Your task to perform on an android device: open app "Pluto TV - Live TV and Movies" (install if not already installed) and go to login screen Image 0: 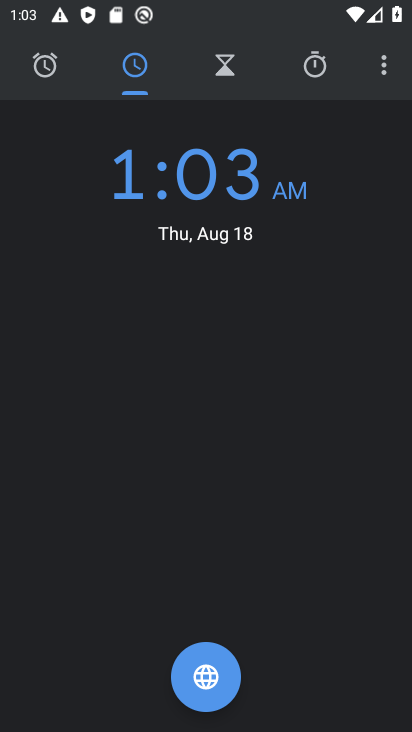
Step 0: press home button
Your task to perform on an android device: open app "Pluto TV - Live TV and Movies" (install if not already installed) and go to login screen Image 1: 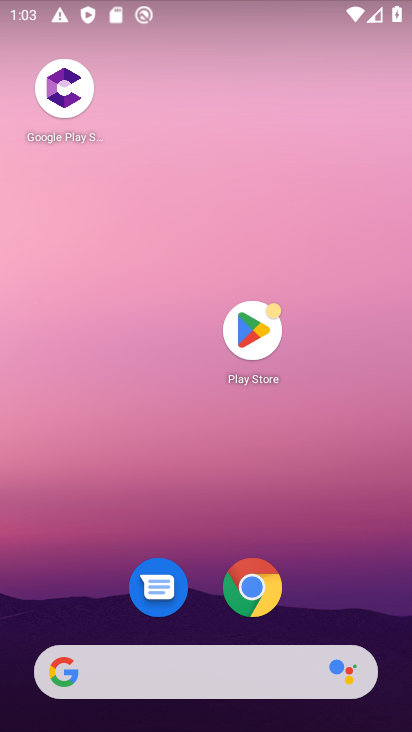
Step 1: click (261, 340)
Your task to perform on an android device: open app "Pluto TV - Live TV and Movies" (install if not already installed) and go to login screen Image 2: 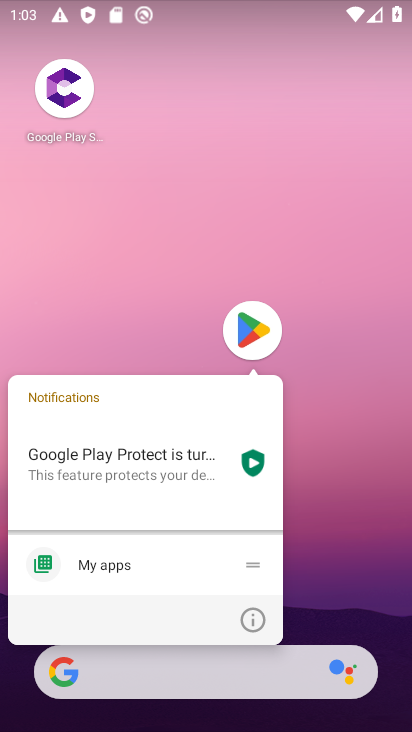
Step 2: click (260, 336)
Your task to perform on an android device: open app "Pluto TV - Live TV and Movies" (install if not already installed) and go to login screen Image 3: 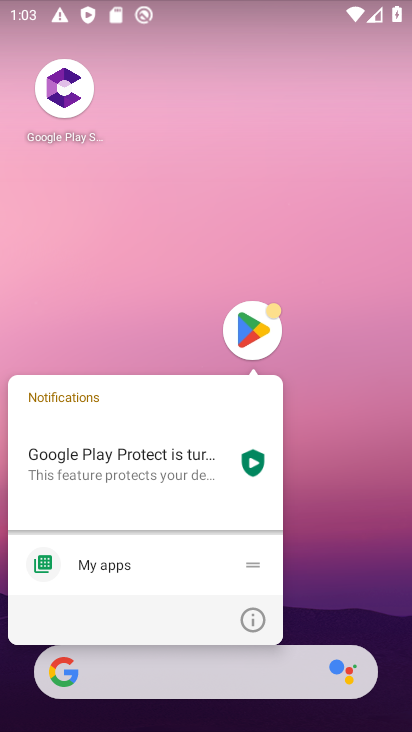
Step 3: click (256, 318)
Your task to perform on an android device: open app "Pluto TV - Live TV and Movies" (install if not already installed) and go to login screen Image 4: 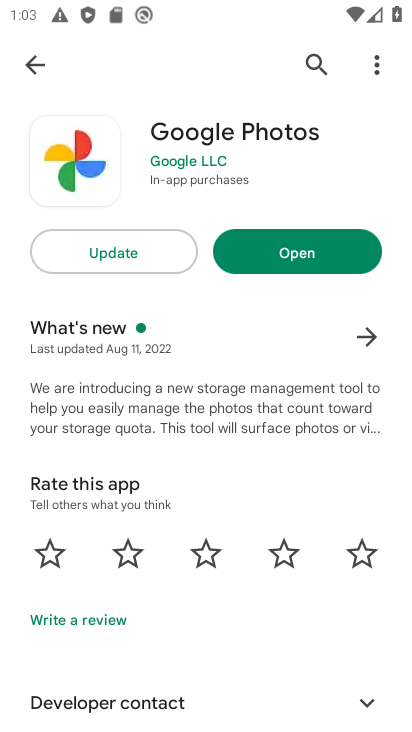
Step 4: click (316, 62)
Your task to perform on an android device: open app "Pluto TV - Live TV and Movies" (install if not already installed) and go to login screen Image 5: 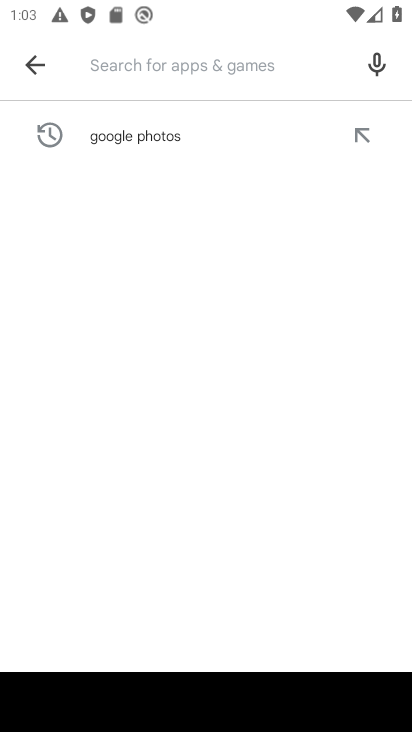
Step 5: type "Pluto TV - Live TV and Movies"
Your task to perform on an android device: open app "Pluto TV - Live TV and Movies" (install if not already installed) and go to login screen Image 6: 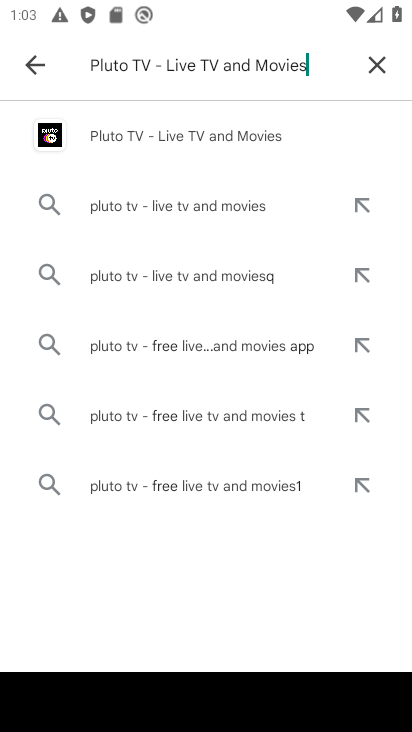
Step 6: click (225, 135)
Your task to perform on an android device: open app "Pluto TV - Live TV and Movies" (install if not already installed) and go to login screen Image 7: 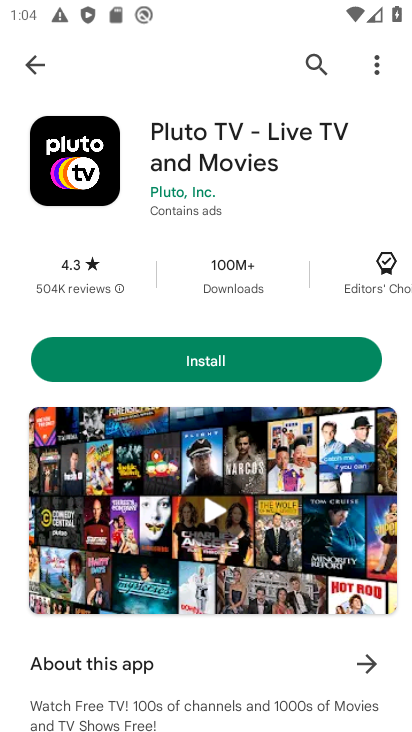
Step 7: click (197, 359)
Your task to perform on an android device: open app "Pluto TV - Live TV and Movies" (install if not already installed) and go to login screen Image 8: 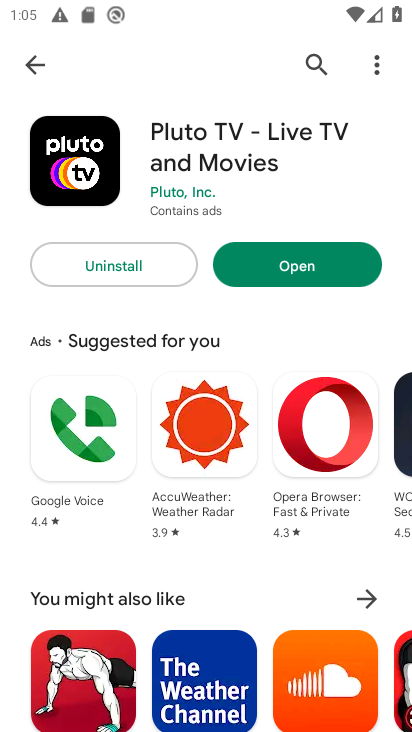
Step 8: click (279, 260)
Your task to perform on an android device: open app "Pluto TV - Live TV and Movies" (install if not already installed) and go to login screen Image 9: 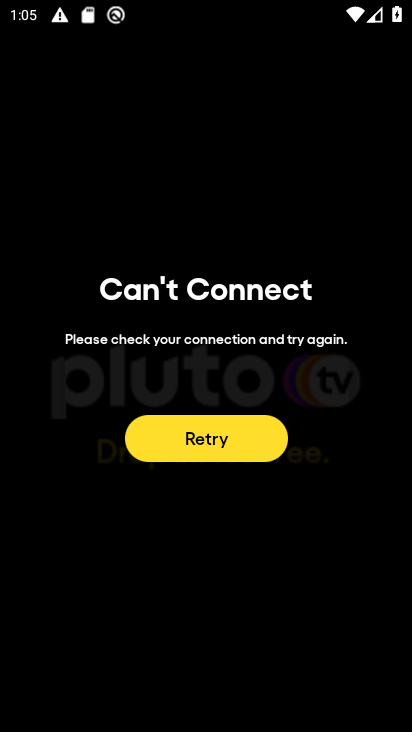
Step 9: task complete